Your task to perform on an android device: toggle location history Image 0: 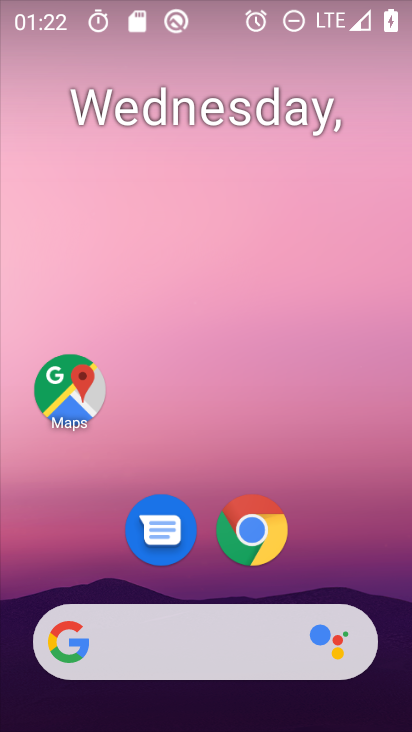
Step 0: drag from (325, 558) to (332, 155)
Your task to perform on an android device: toggle location history Image 1: 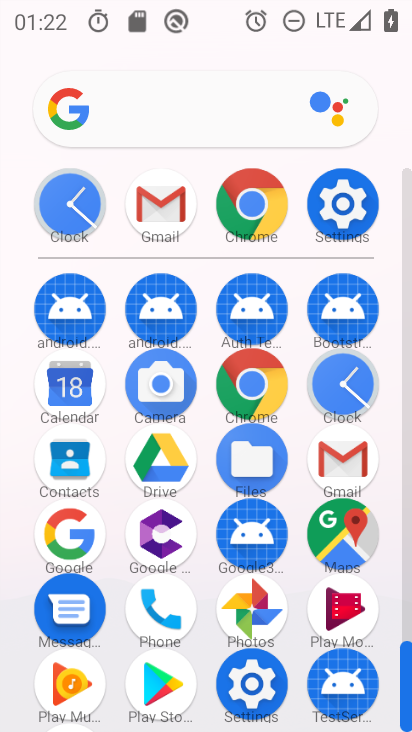
Step 1: click (344, 183)
Your task to perform on an android device: toggle location history Image 2: 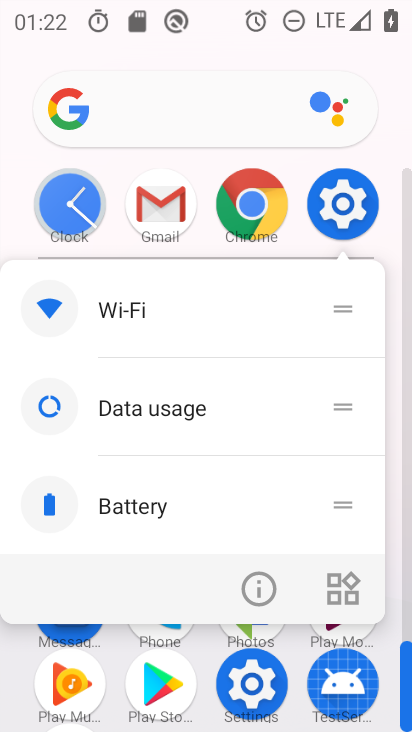
Step 2: click (369, 214)
Your task to perform on an android device: toggle location history Image 3: 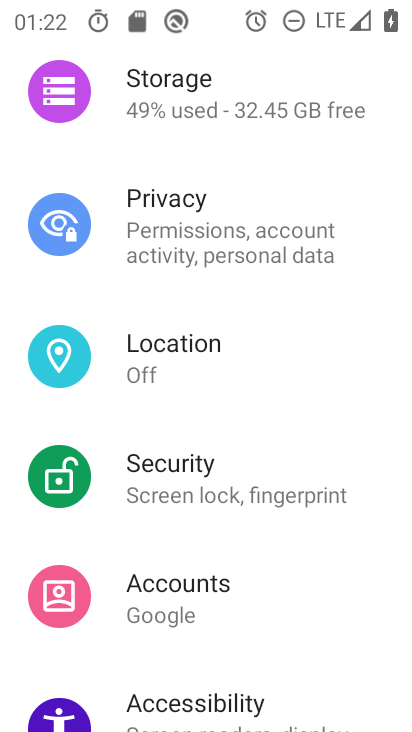
Step 3: click (205, 343)
Your task to perform on an android device: toggle location history Image 4: 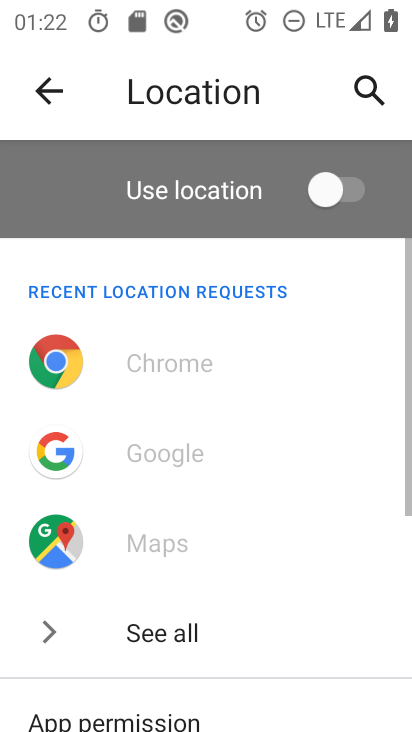
Step 4: drag from (203, 632) to (279, 115)
Your task to perform on an android device: toggle location history Image 5: 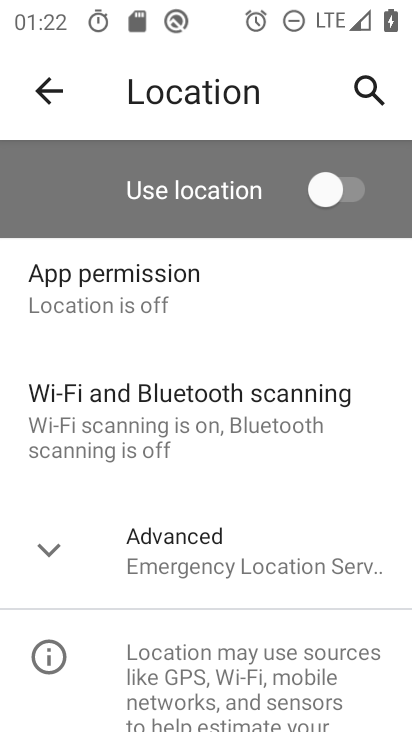
Step 5: click (243, 548)
Your task to perform on an android device: toggle location history Image 6: 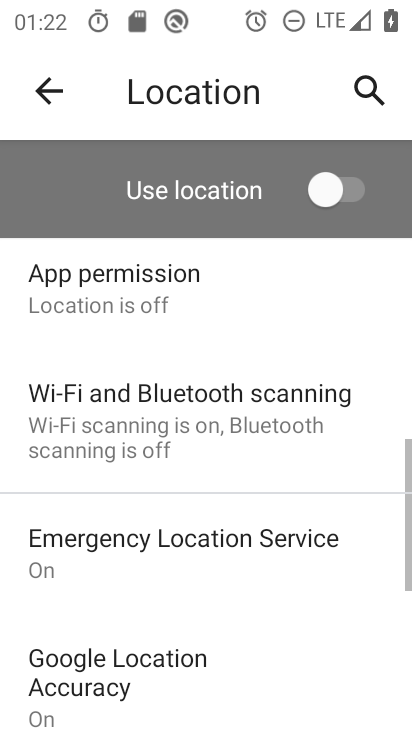
Step 6: drag from (251, 641) to (290, 182)
Your task to perform on an android device: toggle location history Image 7: 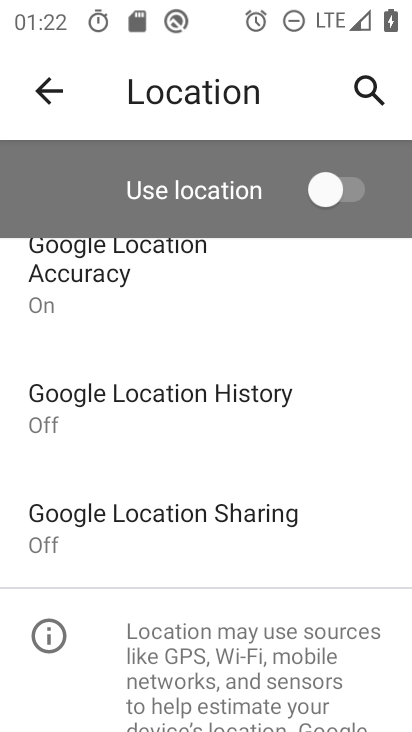
Step 7: click (158, 402)
Your task to perform on an android device: toggle location history Image 8: 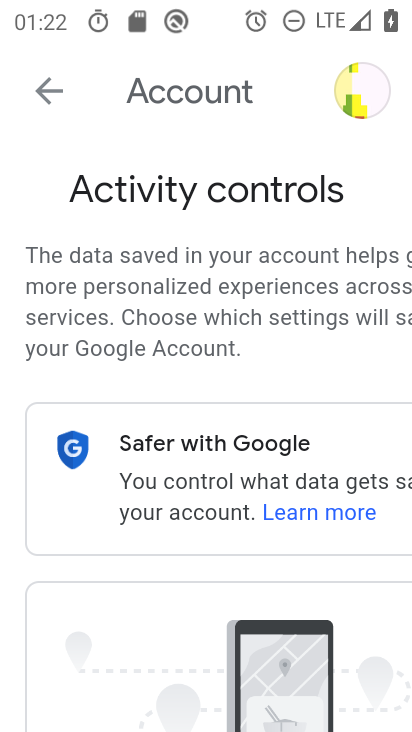
Step 8: drag from (287, 555) to (308, 56)
Your task to perform on an android device: toggle location history Image 9: 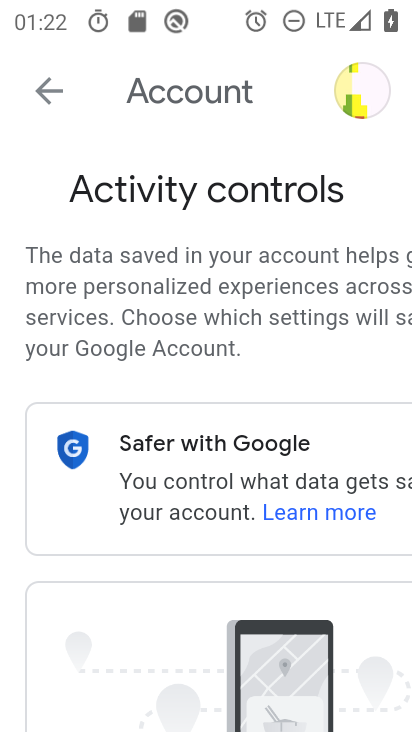
Step 9: drag from (247, 529) to (240, 63)
Your task to perform on an android device: toggle location history Image 10: 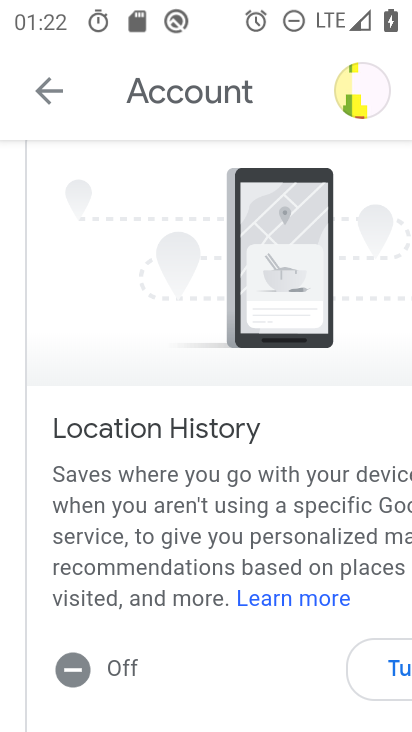
Step 10: drag from (358, 546) to (217, 196)
Your task to perform on an android device: toggle location history Image 11: 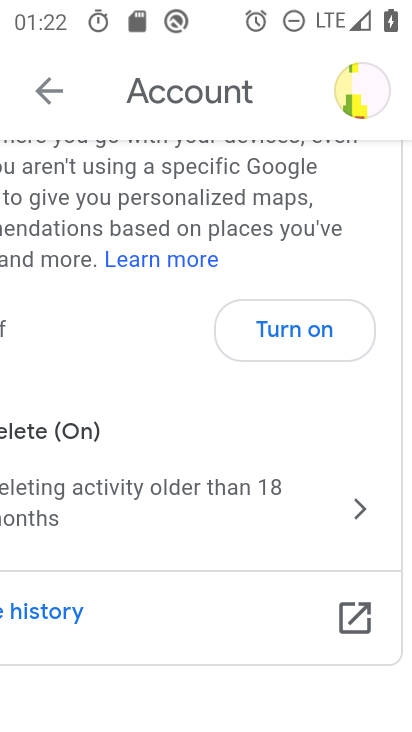
Step 11: click (317, 332)
Your task to perform on an android device: toggle location history Image 12: 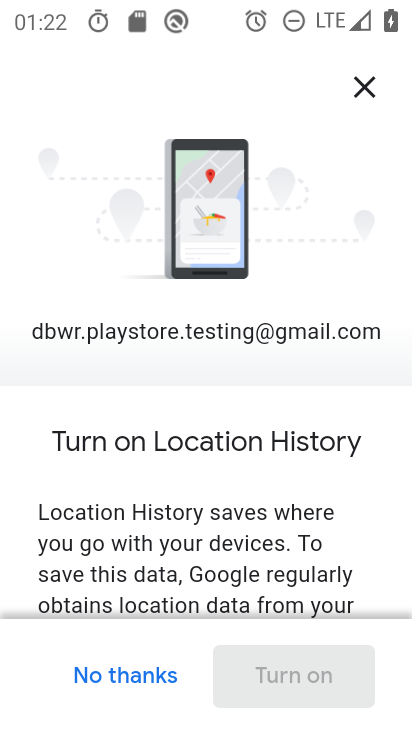
Step 12: drag from (251, 526) to (249, 65)
Your task to perform on an android device: toggle location history Image 13: 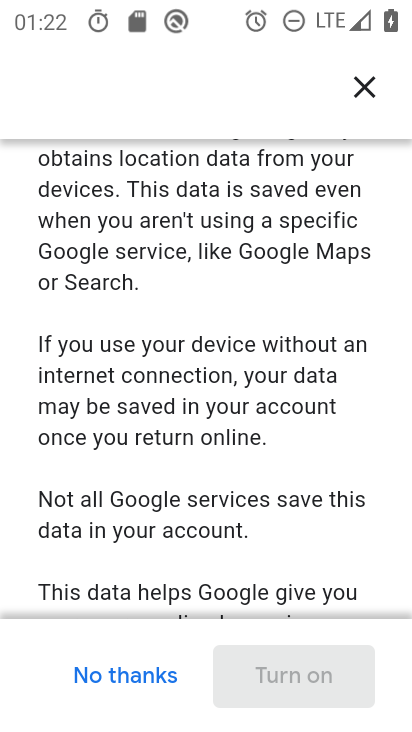
Step 13: drag from (221, 565) to (288, 86)
Your task to perform on an android device: toggle location history Image 14: 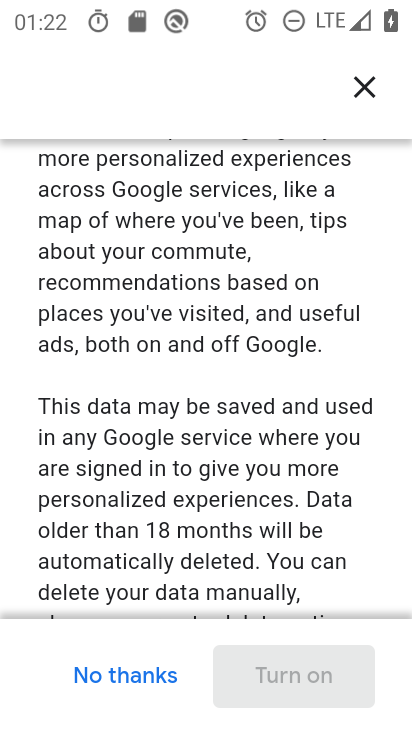
Step 14: drag from (301, 586) to (339, 134)
Your task to perform on an android device: toggle location history Image 15: 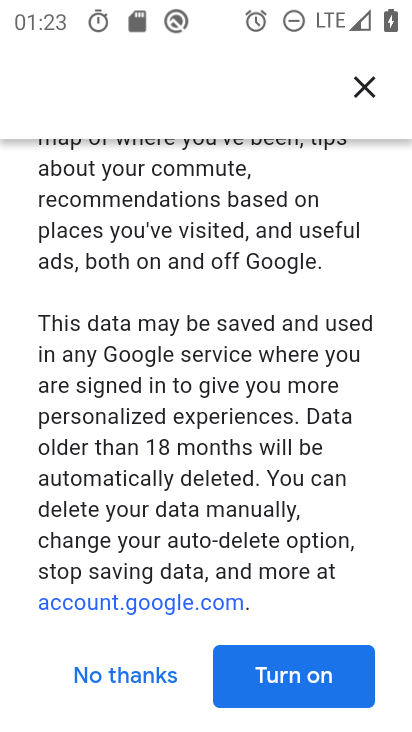
Step 15: click (291, 659)
Your task to perform on an android device: toggle location history Image 16: 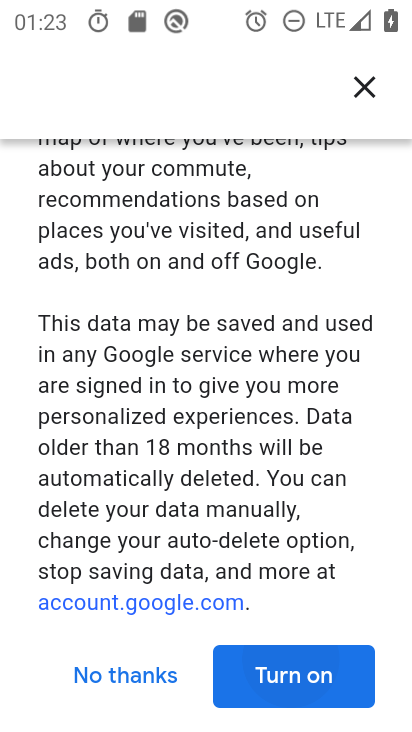
Step 16: click (291, 659)
Your task to perform on an android device: toggle location history Image 17: 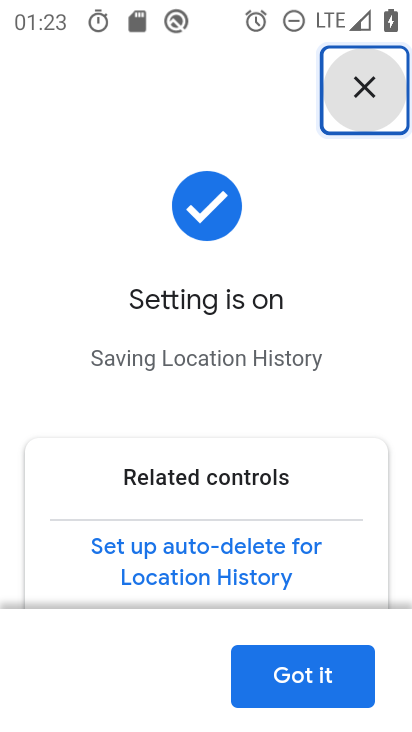
Step 17: task complete